Your task to perform on an android device: Open sound settings Image 0: 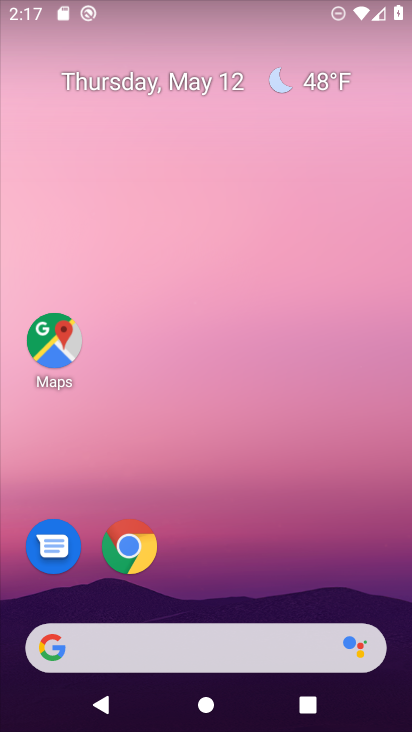
Step 0: drag from (241, 637) to (164, 262)
Your task to perform on an android device: Open sound settings Image 1: 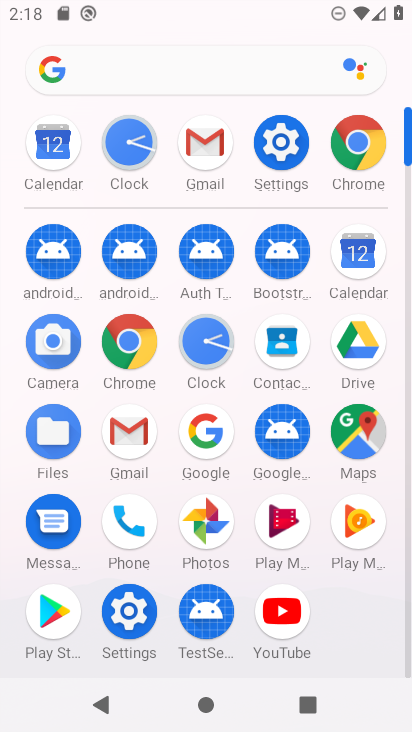
Step 1: click (269, 145)
Your task to perform on an android device: Open sound settings Image 2: 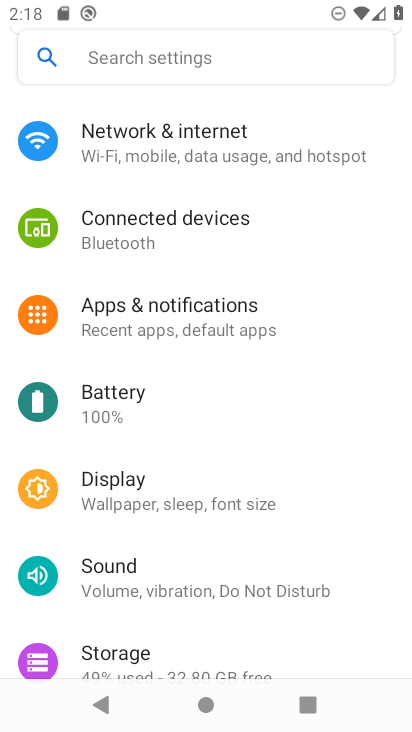
Step 2: click (103, 574)
Your task to perform on an android device: Open sound settings Image 3: 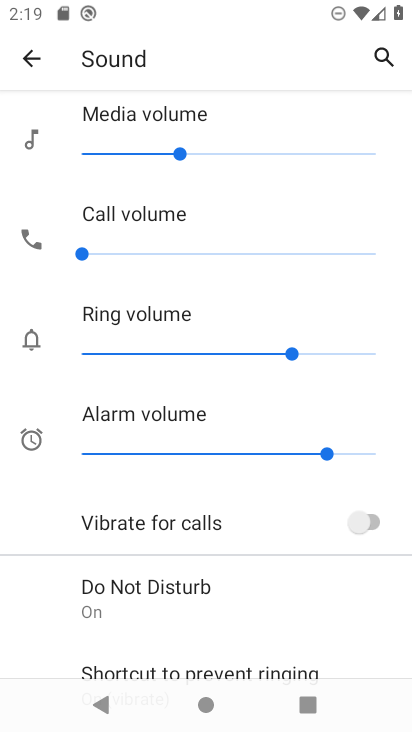
Step 3: task complete